Your task to perform on an android device: Check the news Image 0: 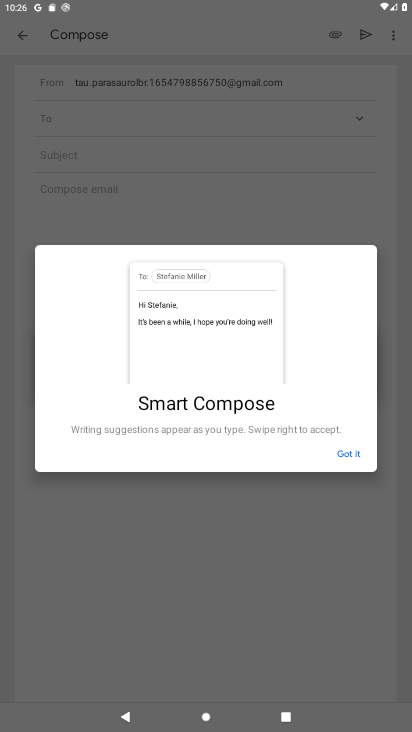
Step 0: press home button
Your task to perform on an android device: Check the news Image 1: 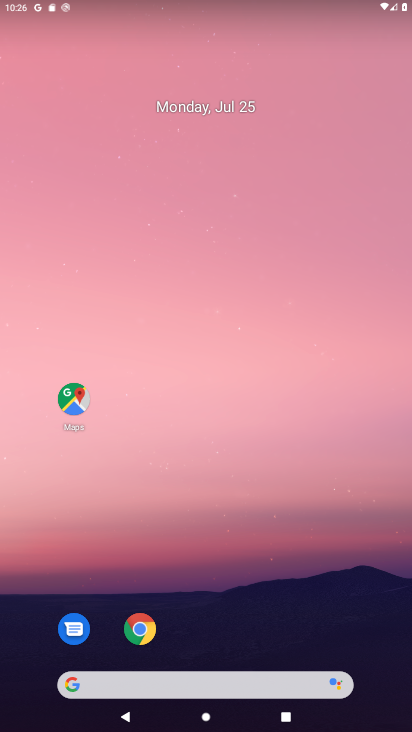
Step 1: click (166, 679)
Your task to perform on an android device: Check the news Image 2: 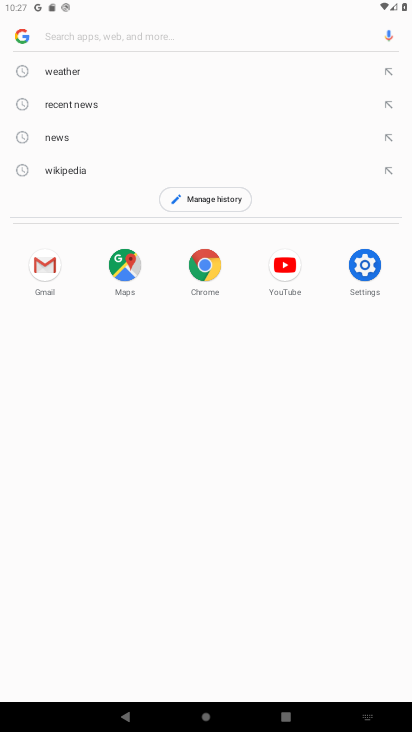
Step 2: click (18, 36)
Your task to perform on an android device: Check the news Image 3: 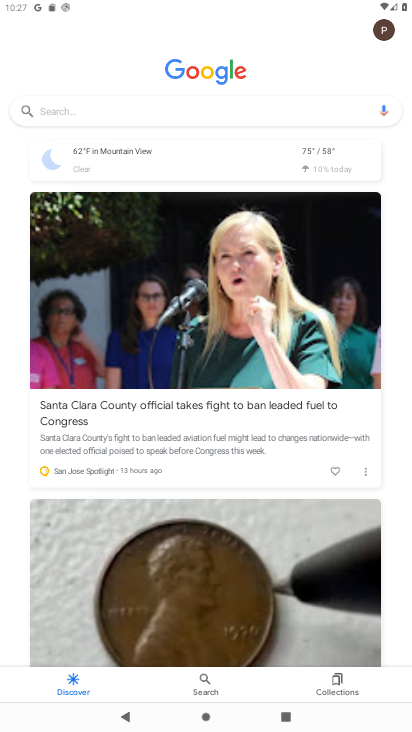
Step 3: task complete